Your task to perform on an android device: set default search engine in the chrome app Image 0: 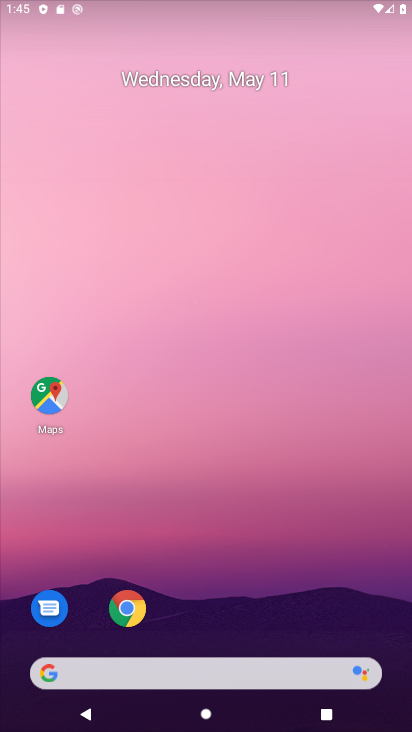
Step 0: press home button
Your task to perform on an android device: set default search engine in the chrome app Image 1: 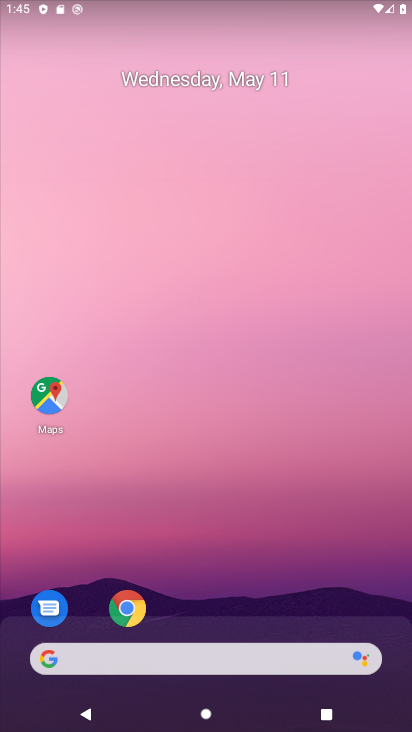
Step 1: click (129, 608)
Your task to perform on an android device: set default search engine in the chrome app Image 2: 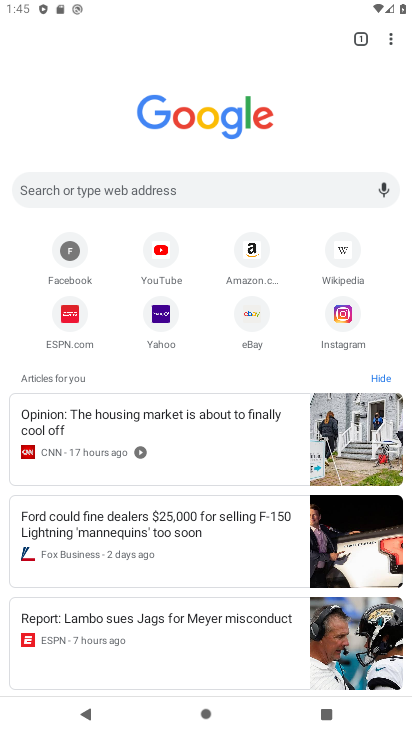
Step 2: click (392, 33)
Your task to perform on an android device: set default search engine in the chrome app Image 3: 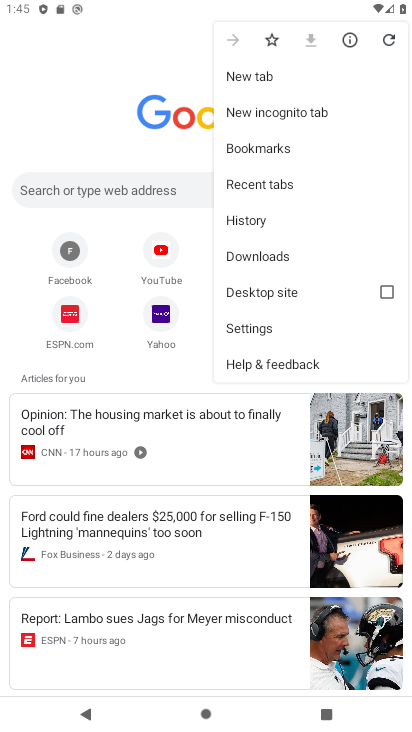
Step 3: click (279, 328)
Your task to perform on an android device: set default search engine in the chrome app Image 4: 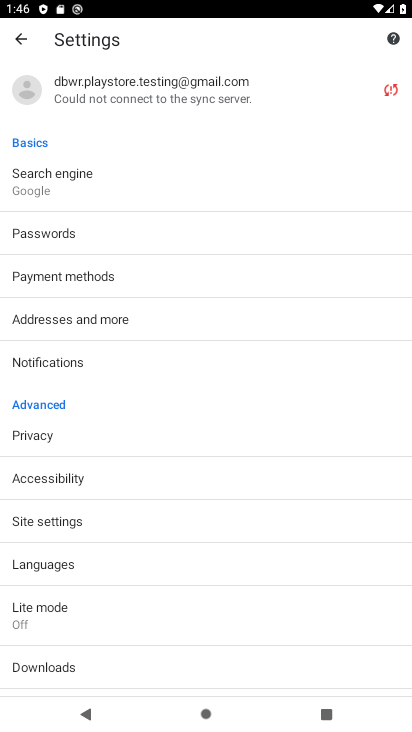
Step 4: click (91, 185)
Your task to perform on an android device: set default search engine in the chrome app Image 5: 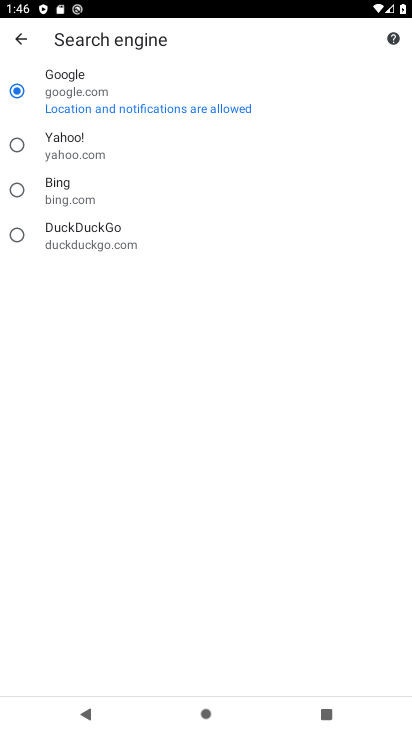
Step 5: click (12, 187)
Your task to perform on an android device: set default search engine in the chrome app Image 6: 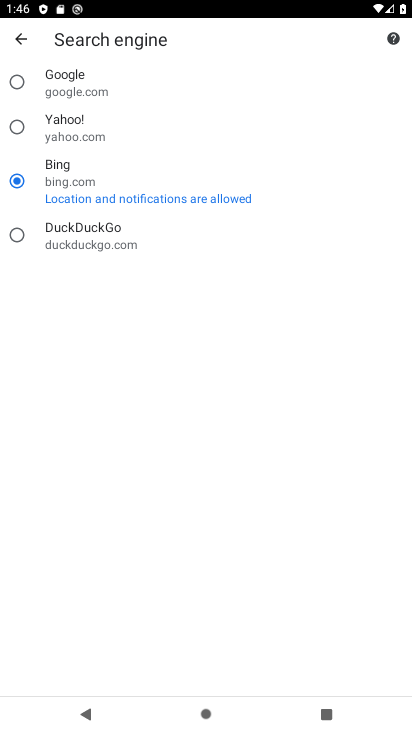
Step 6: task complete